Your task to perform on an android device: Open privacy settings Image 0: 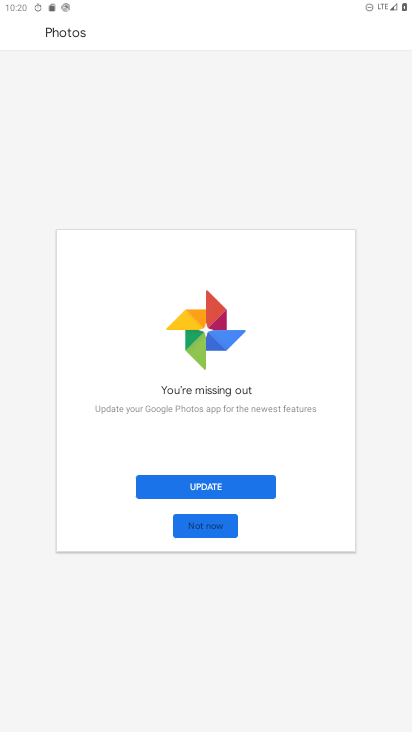
Step 0: press home button
Your task to perform on an android device: Open privacy settings Image 1: 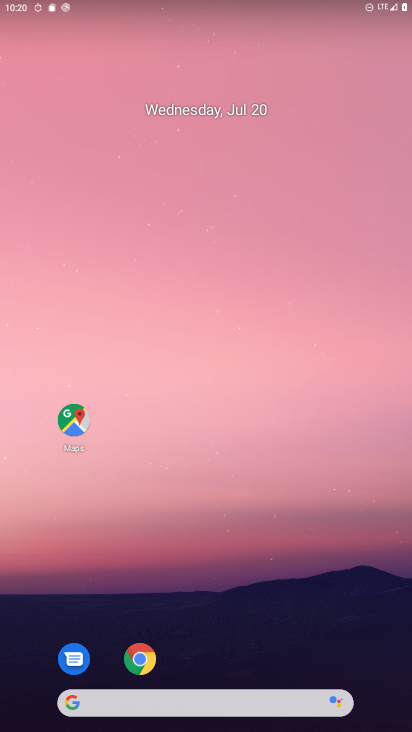
Step 1: drag from (283, 577) to (85, 112)
Your task to perform on an android device: Open privacy settings Image 2: 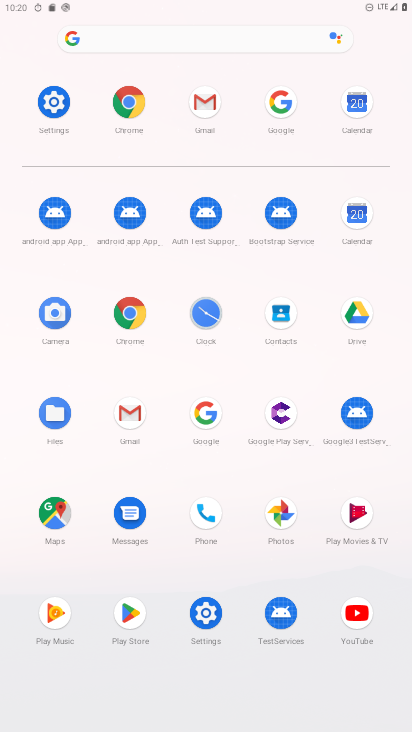
Step 2: click (43, 107)
Your task to perform on an android device: Open privacy settings Image 3: 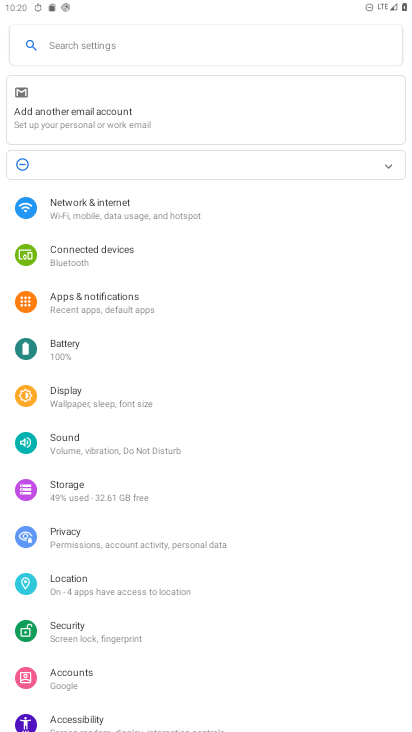
Step 3: drag from (240, 654) to (217, 357)
Your task to perform on an android device: Open privacy settings Image 4: 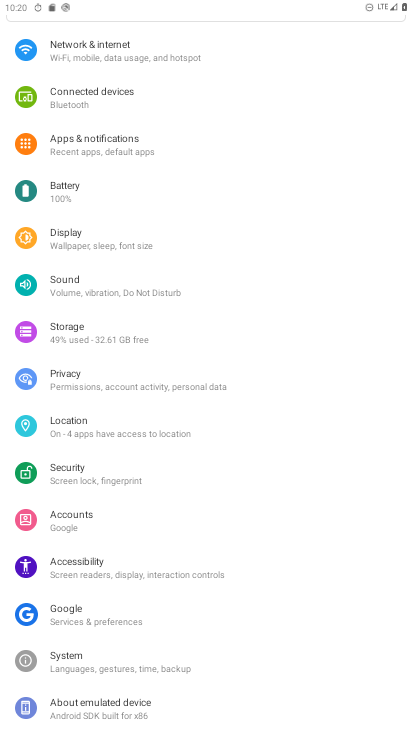
Step 4: click (86, 394)
Your task to perform on an android device: Open privacy settings Image 5: 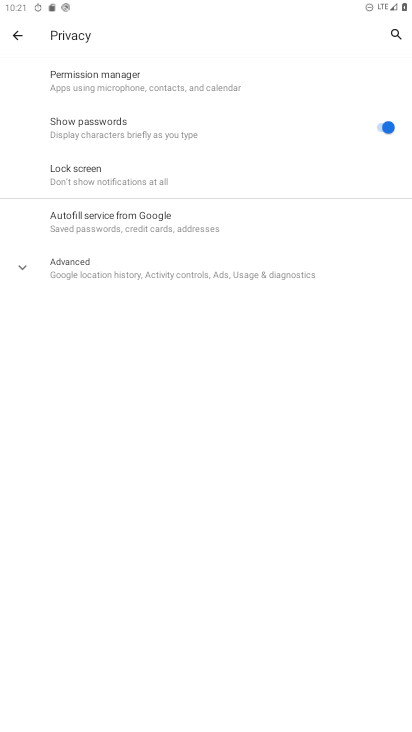
Step 5: task complete